Your task to perform on an android device: Go to settings Image 0: 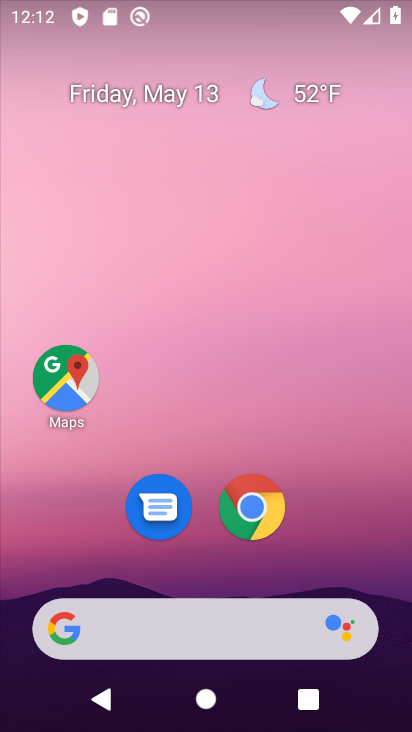
Step 0: drag from (201, 584) to (270, 203)
Your task to perform on an android device: Go to settings Image 1: 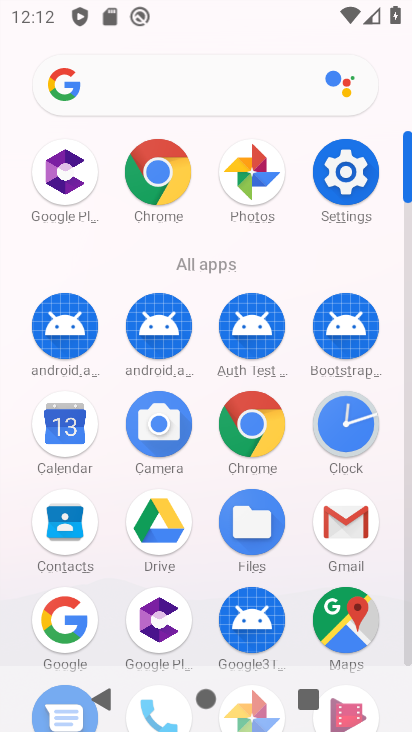
Step 1: click (351, 169)
Your task to perform on an android device: Go to settings Image 2: 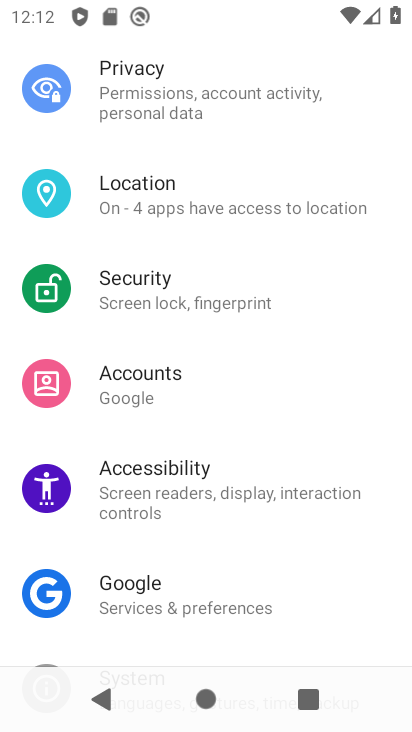
Step 2: task complete